Your task to perform on an android device: Go to Yahoo.com Image 0: 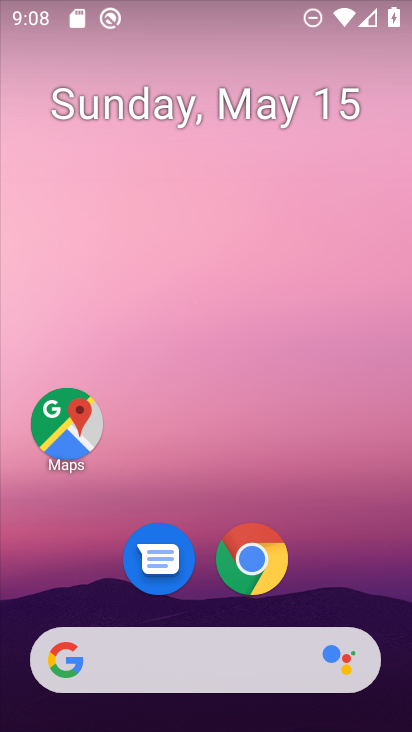
Step 0: click (268, 574)
Your task to perform on an android device: Go to Yahoo.com Image 1: 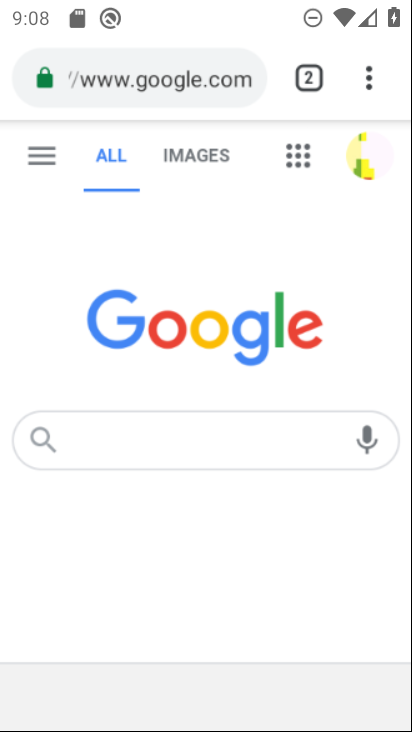
Step 1: click (175, 87)
Your task to perform on an android device: Go to Yahoo.com Image 2: 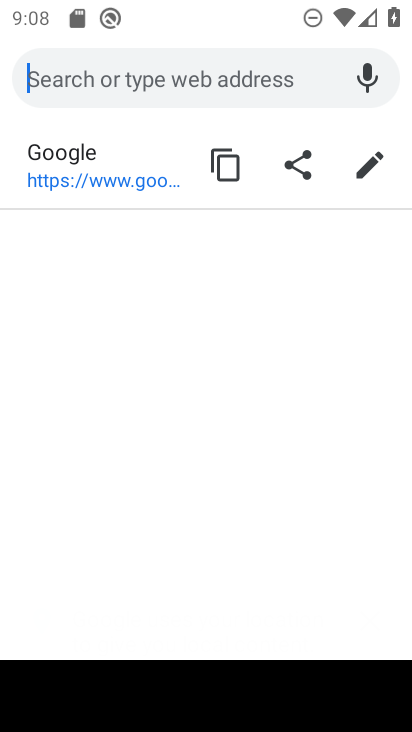
Step 2: type "yahoo.com"
Your task to perform on an android device: Go to Yahoo.com Image 3: 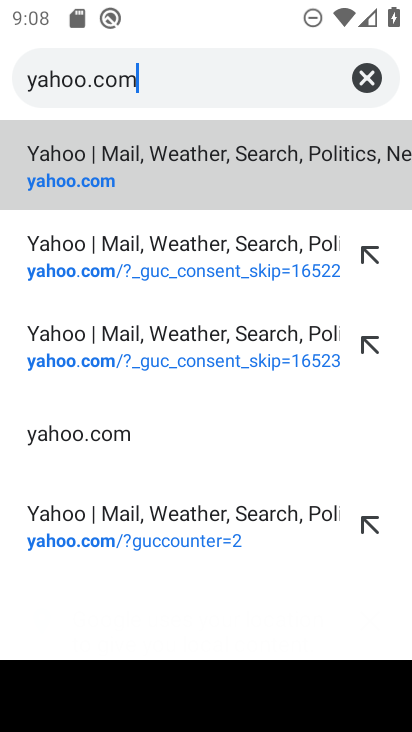
Step 3: click (187, 167)
Your task to perform on an android device: Go to Yahoo.com Image 4: 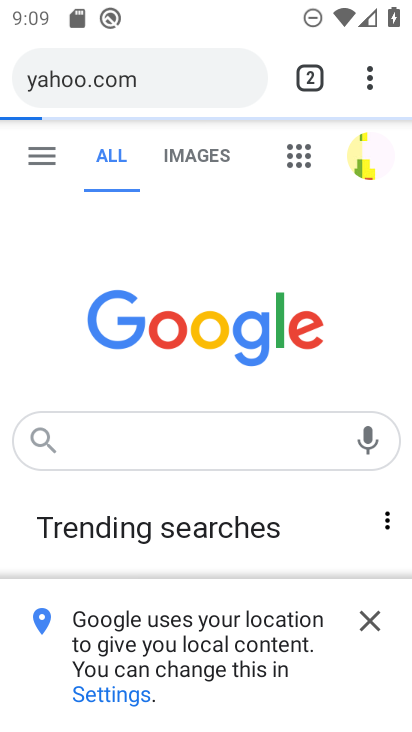
Step 4: task complete